Your task to perform on an android device: add a contact in the contacts app Image 0: 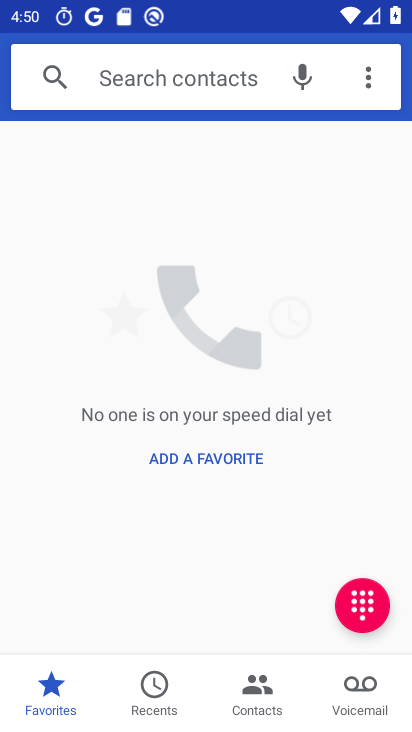
Step 0: drag from (191, 722) to (197, 227)
Your task to perform on an android device: add a contact in the contacts app Image 1: 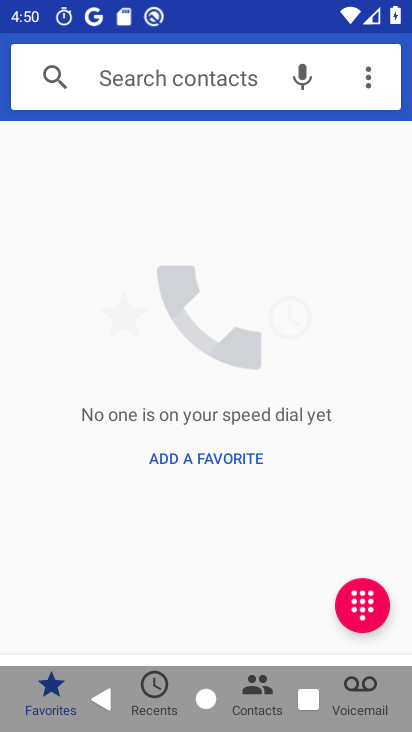
Step 1: press home button
Your task to perform on an android device: add a contact in the contacts app Image 2: 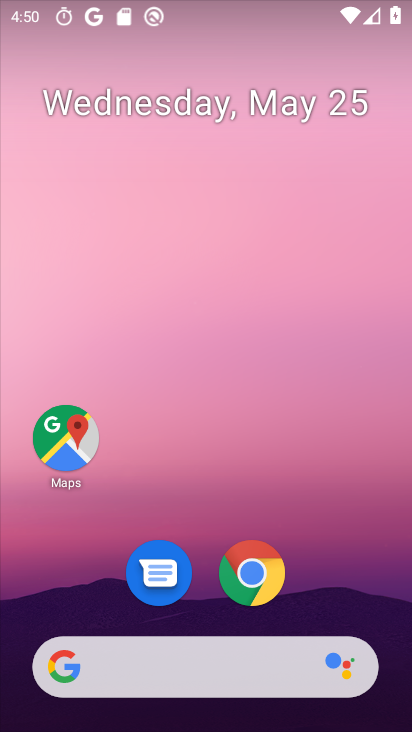
Step 2: drag from (223, 722) to (228, 90)
Your task to perform on an android device: add a contact in the contacts app Image 3: 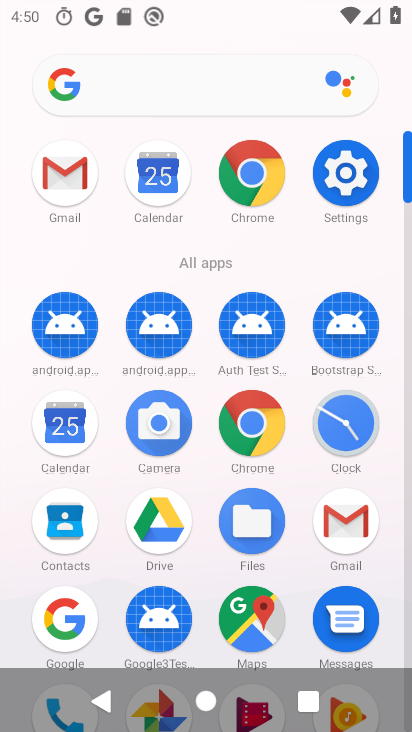
Step 3: click (66, 429)
Your task to perform on an android device: add a contact in the contacts app Image 4: 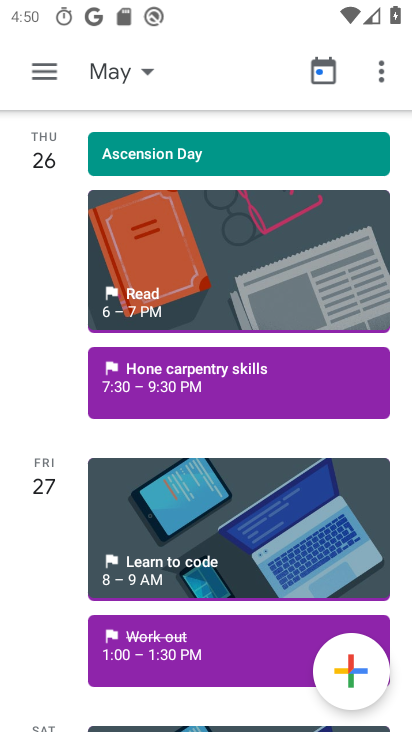
Step 4: press home button
Your task to perform on an android device: add a contact in the contacts app Image 5: 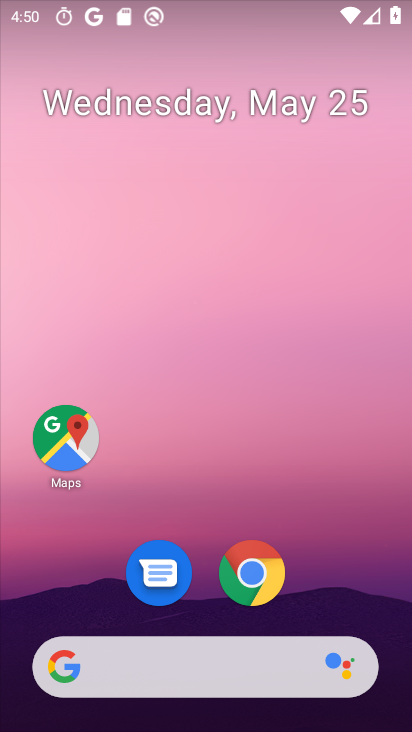
Step 5: drag from (232, 721) to (227, 144)
Your task to perform on an android device: add a contact in the contacts app Image 6: 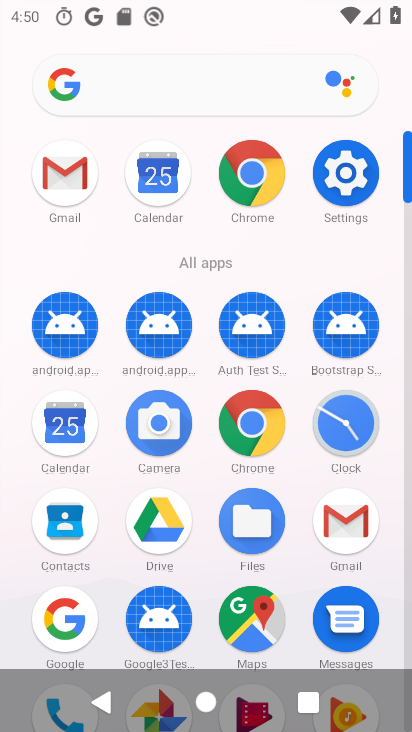
Step 6: click (65, 518)
Your task to perform on an android device: add a contact in the contacts app Image 7: 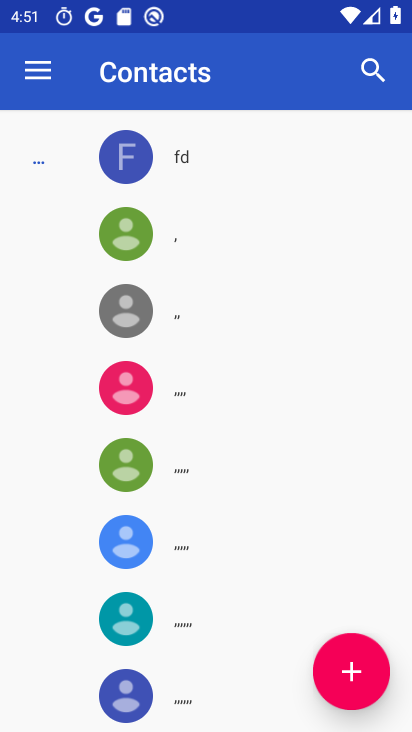
Step 7: click (357, 667)
Your task to perform on an android device: add a contact in the contacts app Image 8: 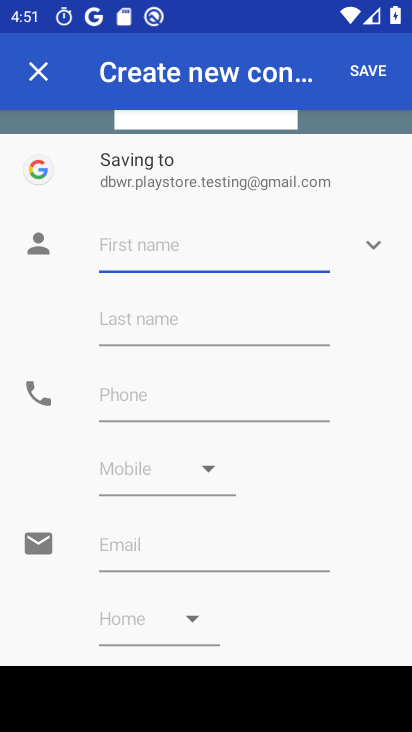
Step 8: type "hhhh"
Your task to perform on an android device: add a contact in the contacts app Image 9: 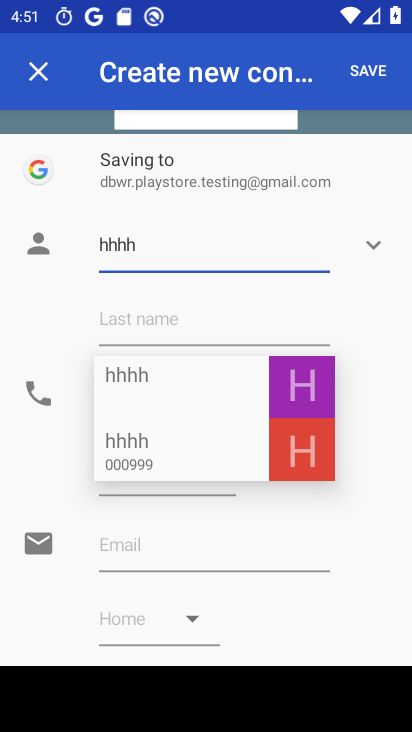
Step 9: click (125, 401)
Your task to perform on an android device: add a contact in the contacts app Image 10: 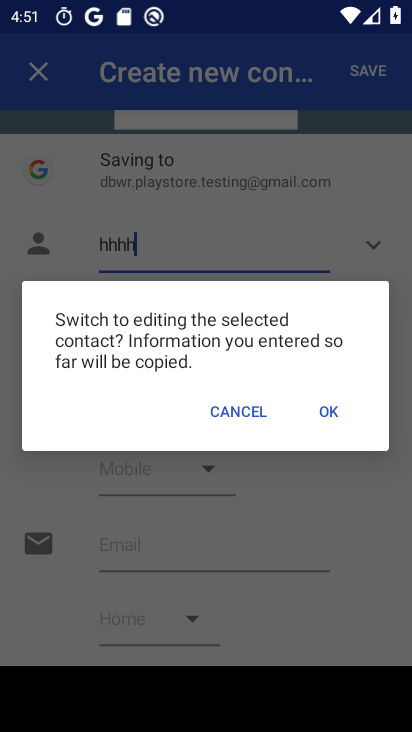
Step 10: click (226, 405)
Your task to perform on an android device: add a contact in the contacts app Image 11: 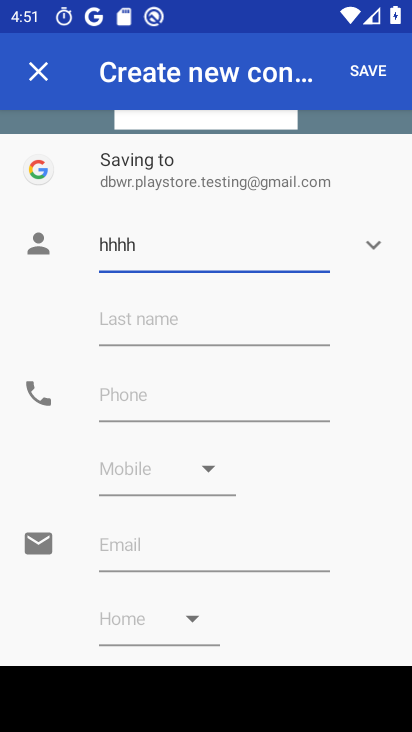
Step 11: click (183, 388)
Your task to perform on an android device: add a contact in the contacts app Image 12: 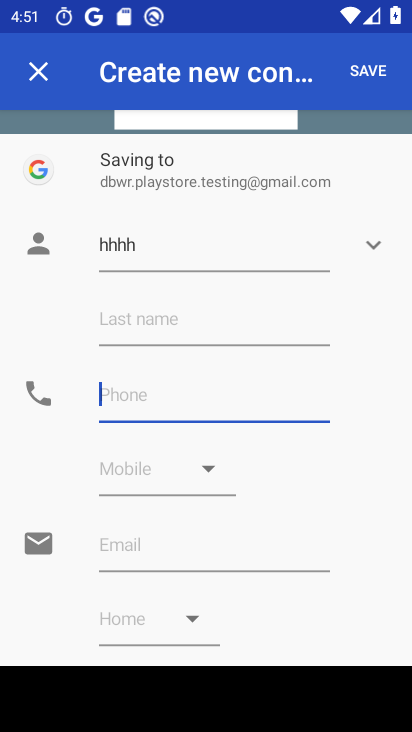
Step 12: type "88888"
Your task to perform on an android device: add a contact in the contacts app Image 13: 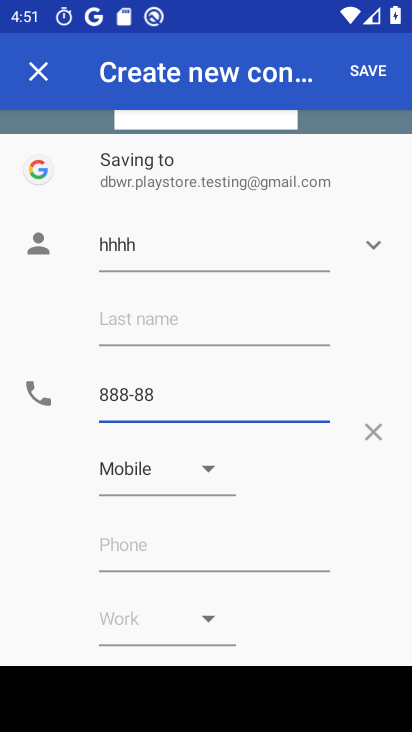
Step 13: click (367, 67)
Your task to perform on an android device: add a contact in the contacts app Image 14: 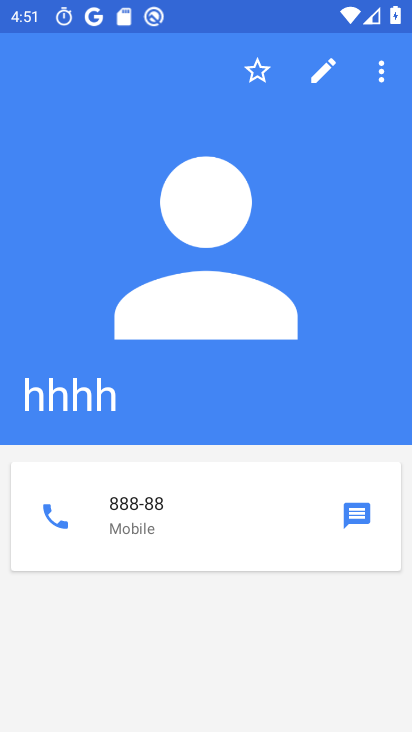
Step 14: task complete